Your task to perform on an android device: turn on javascript in the chrome app Image 0: 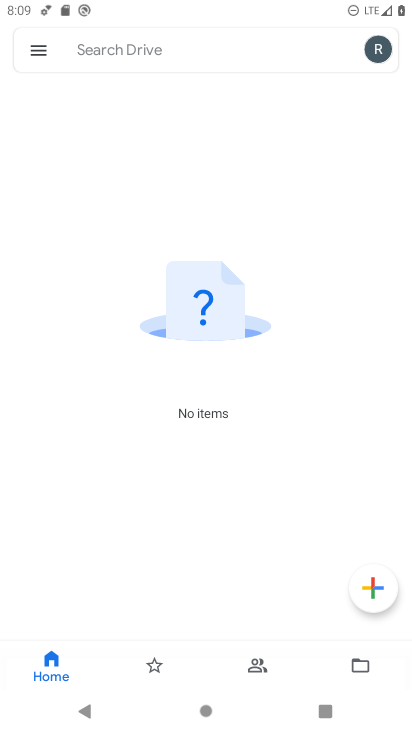
Step 0: press home button
Your task to perform on an android device: turn on javascript in the chrome app Image 1: 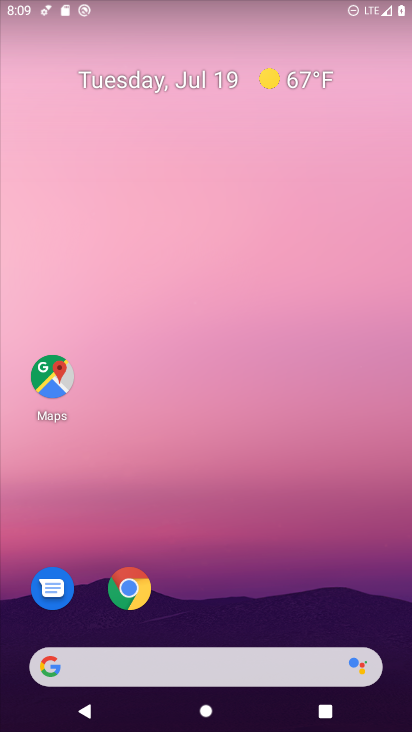
Step 1: drag from (311, 592) to (328, 130)
Your task to perform on an android device: turn on javascript in the chrome app Image 2: 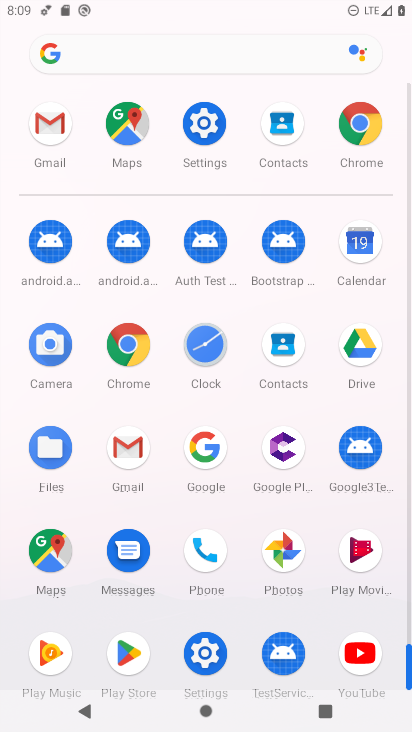
Step 2: click (363, 133)
Your task to perform on an android device: turn on javascript in the chrome app Image 3: 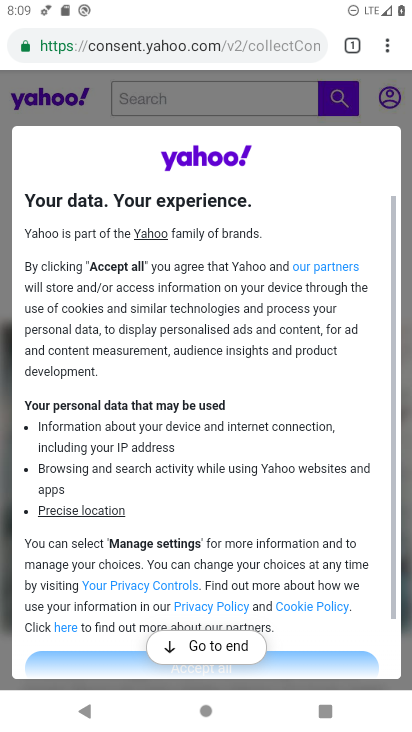
Step 3: click (387, 47)
Your task to perform on an android device: turn on javascript in the chrome app Image 4: 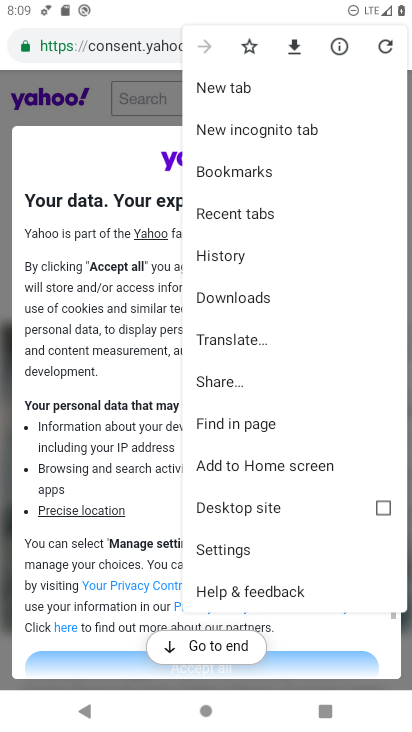
Step 4: click (281, 549)
Your task to perform on an android device: turn on javascript in the chrome app Image 5: 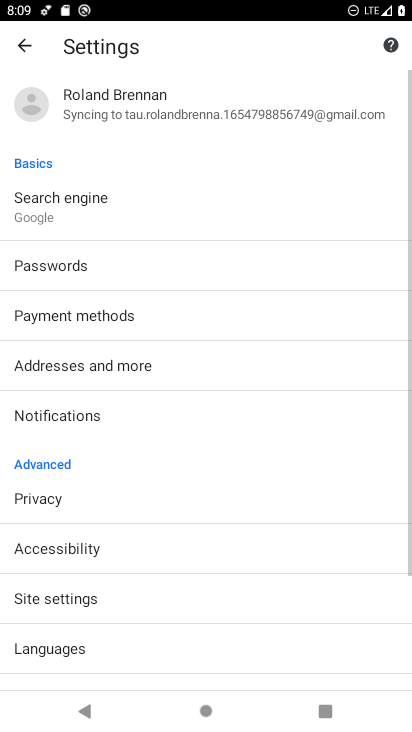
Step 5: drag from (281, 549) to (292, 479)
Your task to perform on an android device: turn on javascript in the chrome app Image 6: 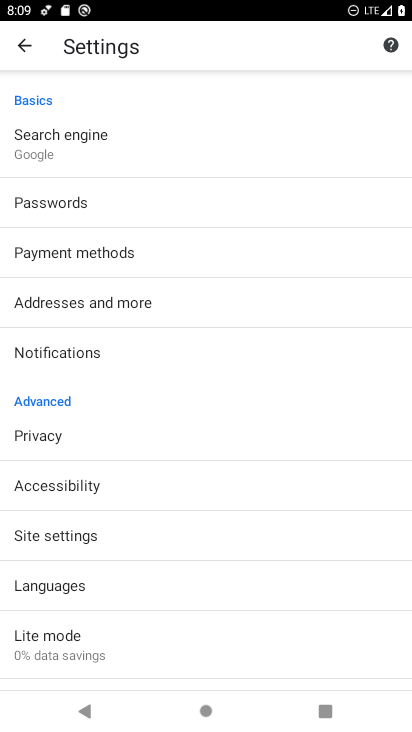
Step 6: drag from (306, 584) to (323, 493)
Your task to perform on an android device: turn on javascript in the chrome app Image 7: 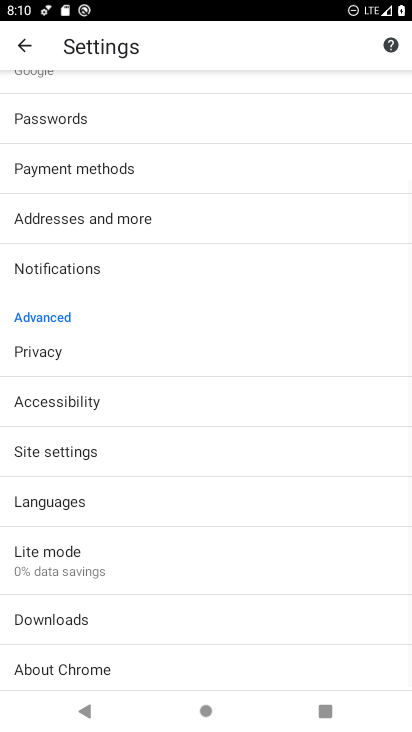
Step 7: drag from (320, 588) to (327, 492)
Your task to perform on an android device: turn on javascript in the chrome app Image 8: 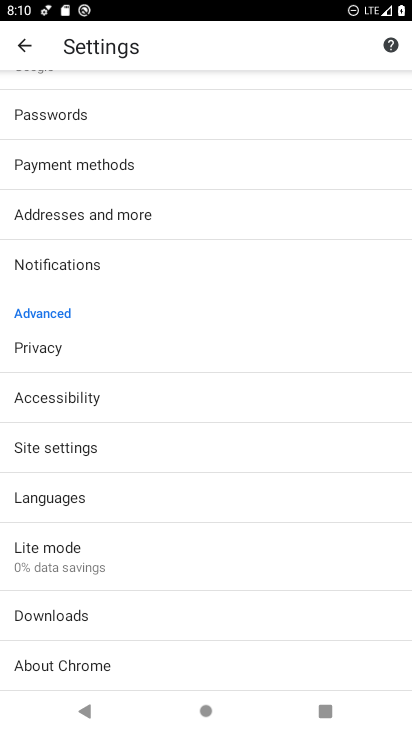
Step 8: click (298, 449)
Your task to perform on an android device: turn on javascript in the chrome app Image 9: 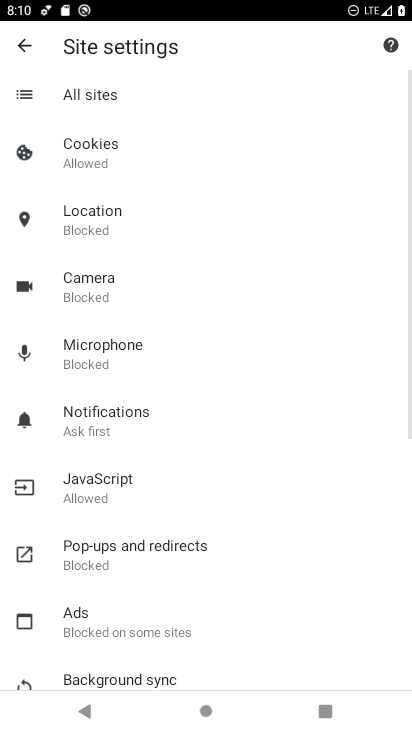
Step 9: drag from (315, 496) to (323, 419)
Your task to perform on an android device: turn on javascript in the chrome app Image 10: 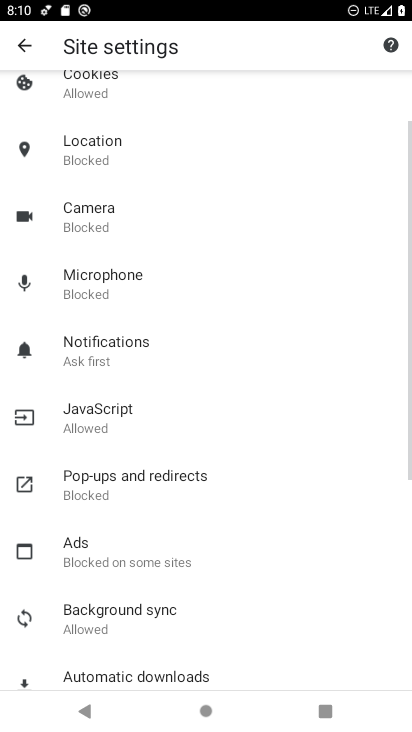
Step 10: drag from (316, 515) to (326, 441)
Your task to perform on an android device: turn on javascript in the chrome app Image 11: 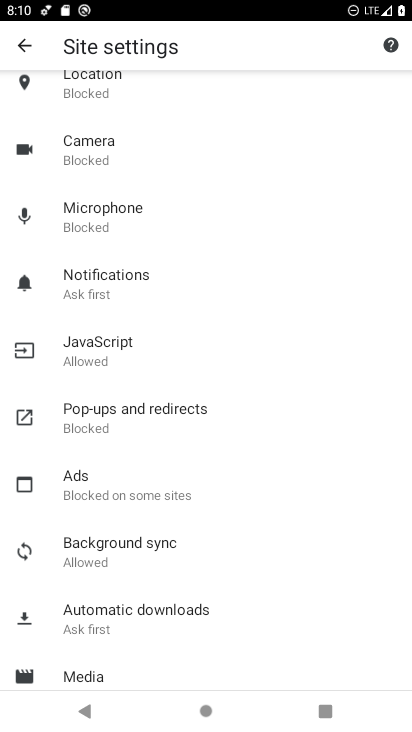
Step 11: drag from (328, 520) to (333, 452)
Your task to perform on an android device: turn on javascript in the chrome app Image 12: 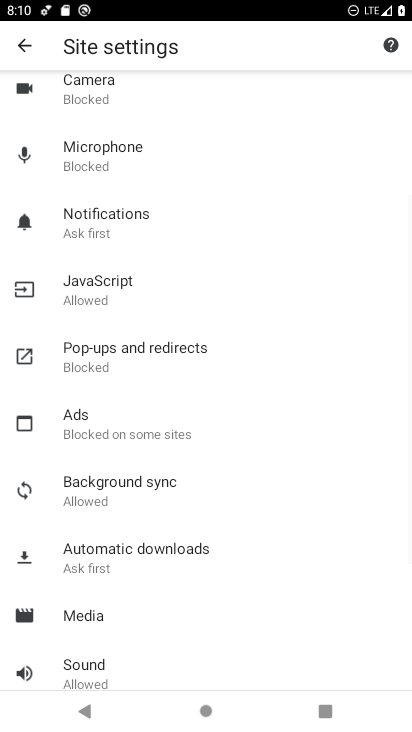
Step 12: drag from (323, 540) to (334, 461)
Your task to perform on an android device: turn on javascript in the chrome app Image 13: 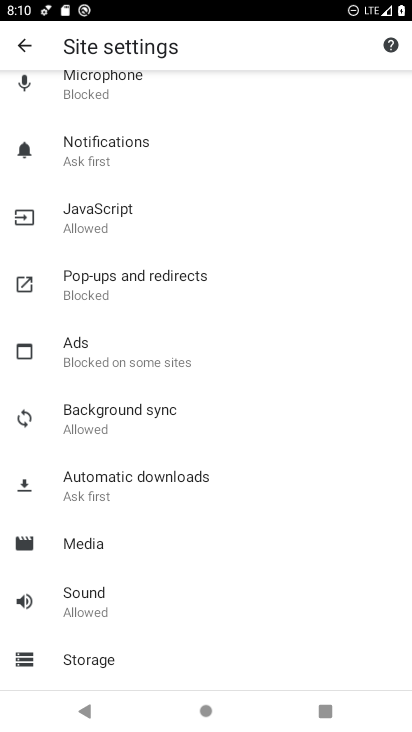
Step 13: drag from (344, 556) to (346, 470)
Your task to perform on an android device: turn on javascript in the chrome app Image 14: 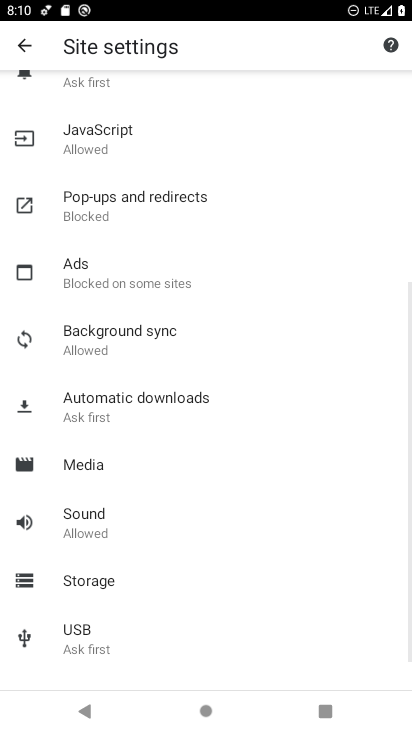
Step 14: drag from (342, 407) to (343, 474)
Your task to perform on an android device: turn on javascript in the chrome app Image 15: 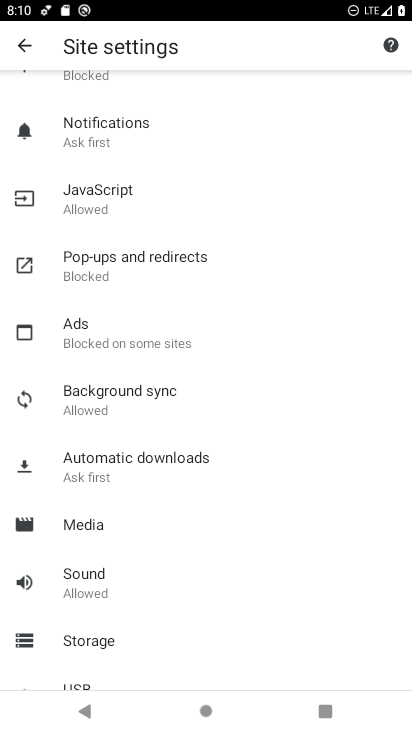
Step 15: drag from (336, 385) to (335, 460)
Your task to perform on an android device: turn on javascript in the chrome app Image 16: 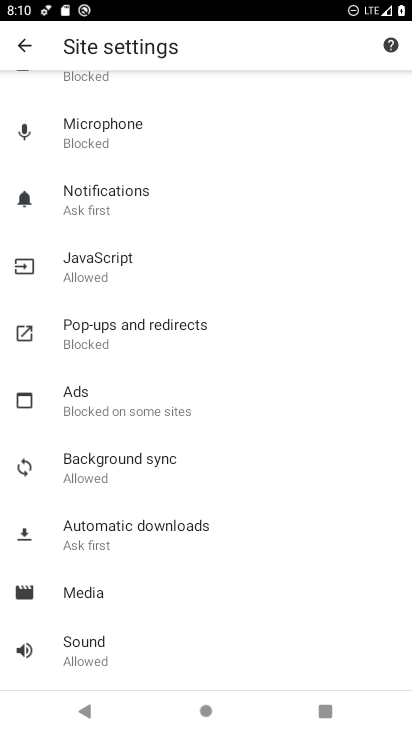
Step 16: drag from (326, 373) to (330, 456)
Your task to perform on an android device: turn on javascript in the chrome app Image 17: 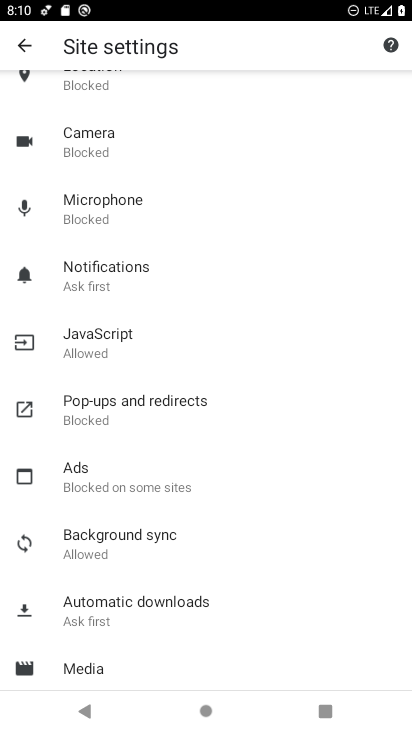
Step 17: drag from (328, 370) to (330, 457)
Your task to perform on an android device: turn on javascript in the chrome app Image 18: 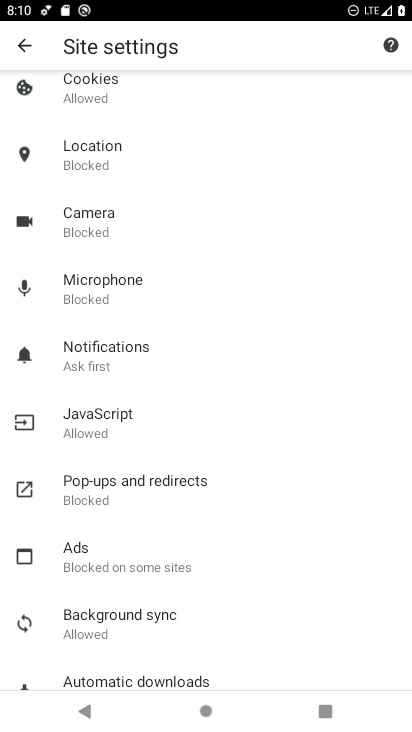
Step 18: drag from (332, 358) to (329, 495)
Your task to perform on an android device: turn on javascript in the chrome app Image 19: 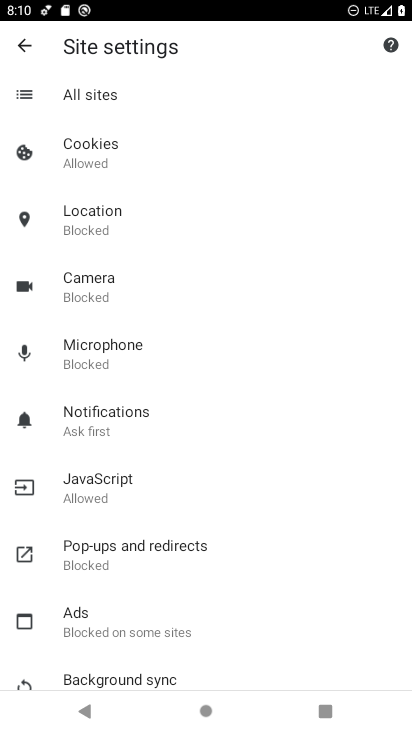
Step 19: click (268, 506)
Your task to perform on an android device: turn on javascript in the chrome app Image 20: 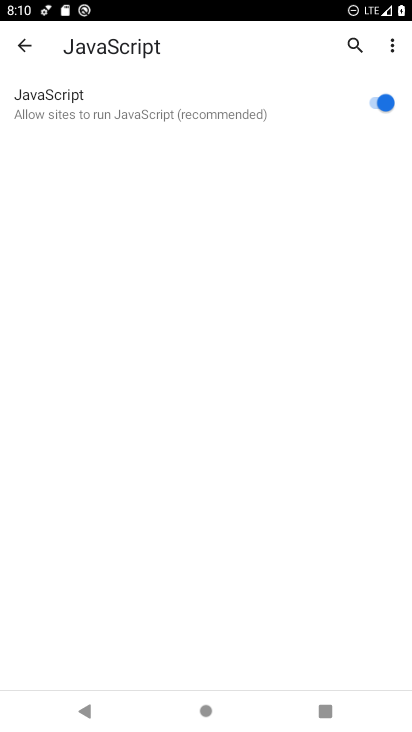
Step 20: task complete